Your task to perform on an android device: toggle sleep mode Image 0: 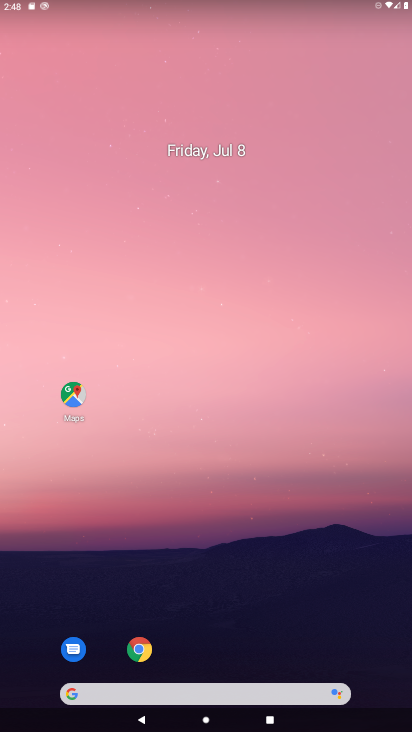
Step 0: drag from (353, 650) to (305, 116)
Your task to perform on an android device: toggle sleep mode Image 1: 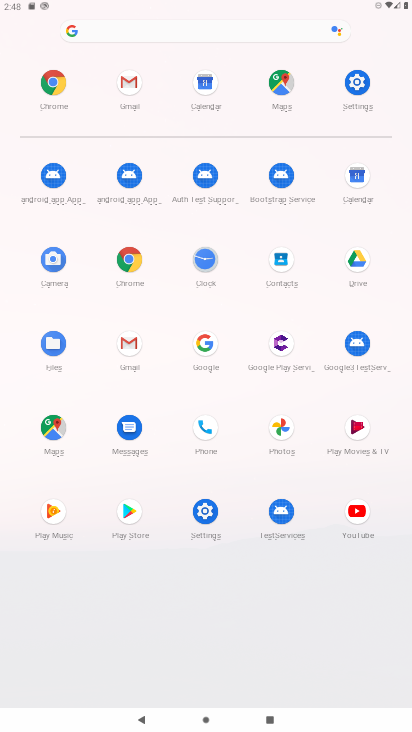
Step 1: click (205, 509)
Your task to perform on an android device: toggle sleep mode Image 2: 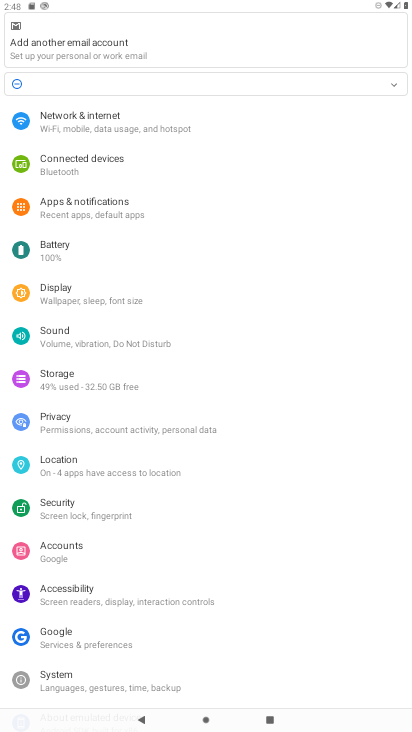
Step 2: click (59, 295)
Your task to perform on an android device: toggle sleep mode Image 3: 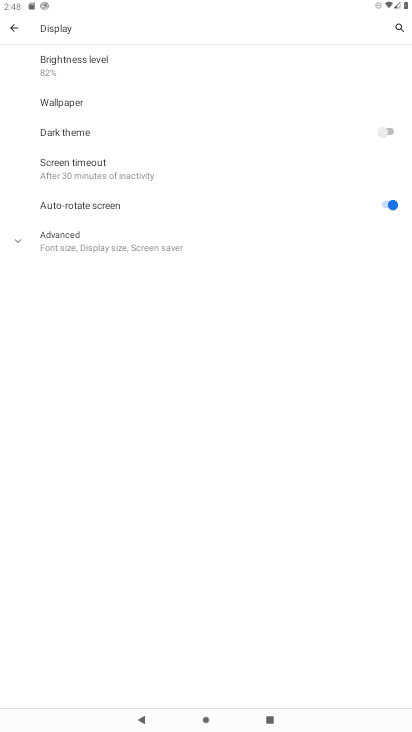
Step 3: click (19, 242)
Your task to perform on an android device: toggle sleep mode Image 4: 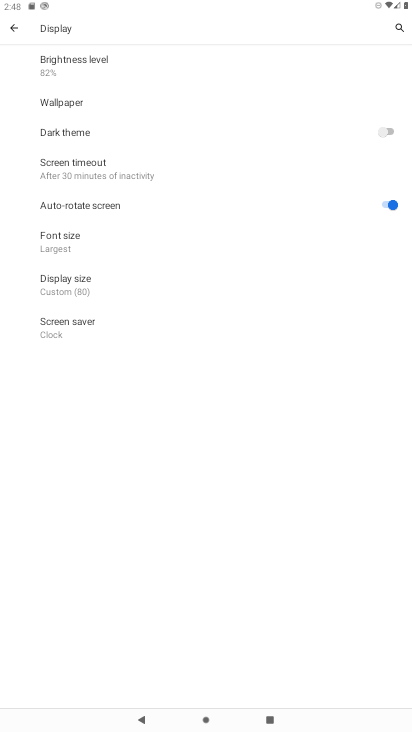
Step 4: task complete